Your task to perform on an android device: Do I have any events this weekend? Image 0: 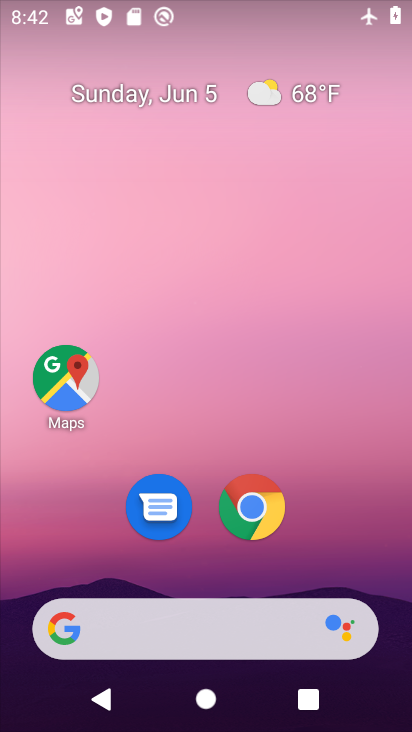
Step 0: drag from (189, 527) to (169, 189)
Your task to perform on an android device: Do I have any events this weekend? Image 1: 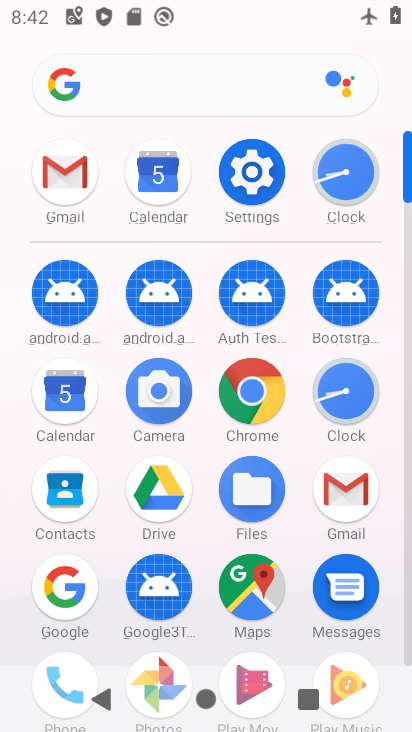
Step 1: click (68, 397)
Your task to perform on an android device: Do I have any events this weekend? Image 2: 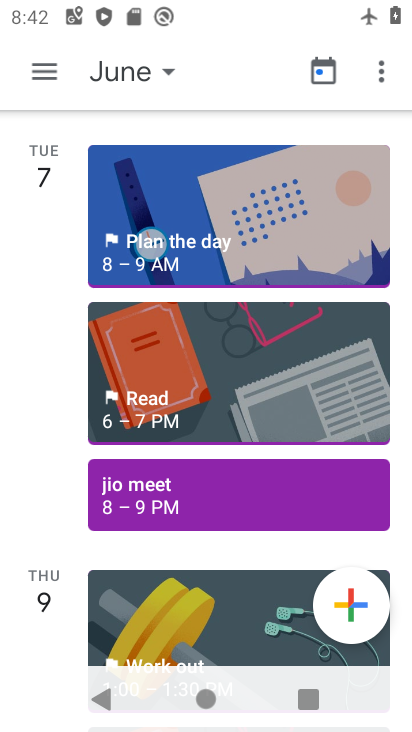
Step 2: click (49, 66)
Your task to perform on an android device: Do I have any events this weekend? Image 3: 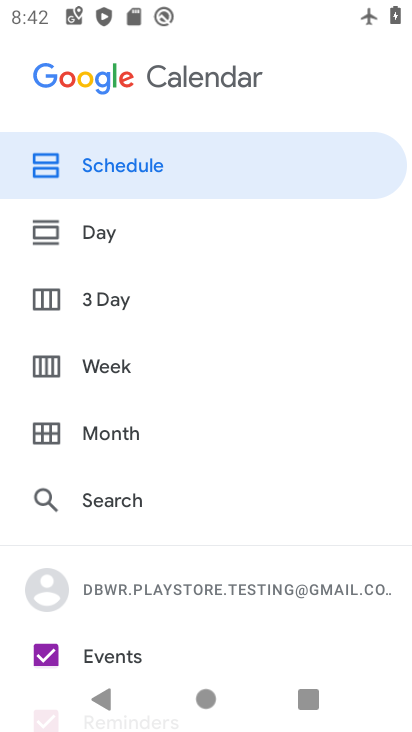
Step 3: drag from (103, 564) to (168, 226)
Your task to perform on an android device: Do I have any events this weekend? Image 4: 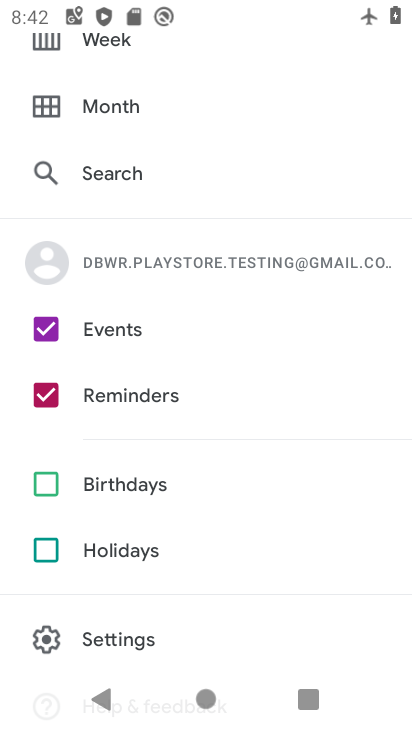
Step 4: click (149, 399)
Your task to perform on an android device: Do I have any events this weekend? Image 5: 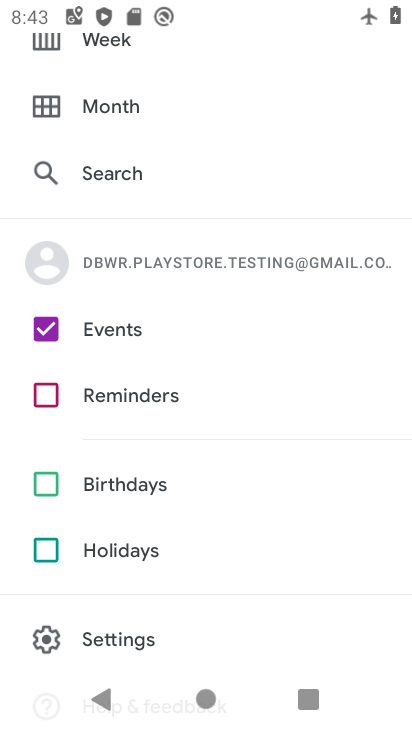
Step 5: drag from (205, 184) to (192, 588)
Your task to perform on an android device: Do I have any events this weekend? Image 6: 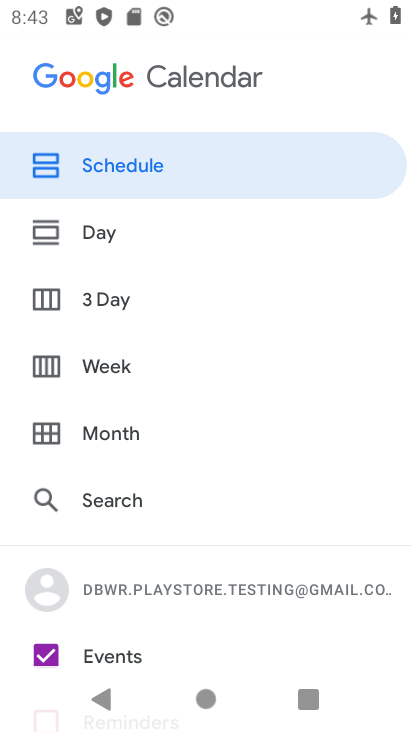
Step 6: click (115, 320)
Your task to perform on an android device: Do I have any events this weekend? Image 7: 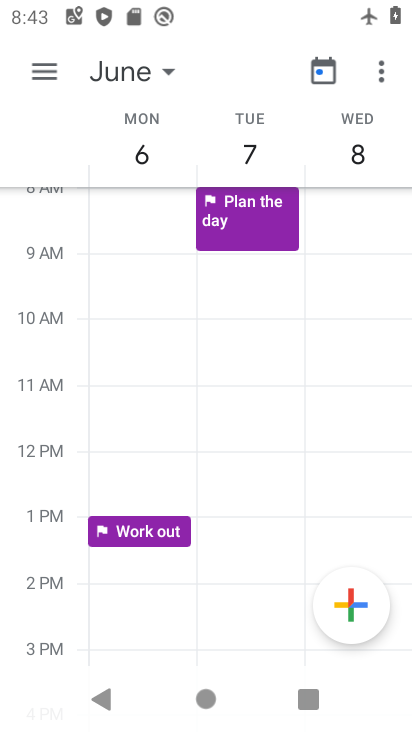
Step 7: click (49, 77)
Your task to perform on an android device: Do I have any events this weekend? Image 8: 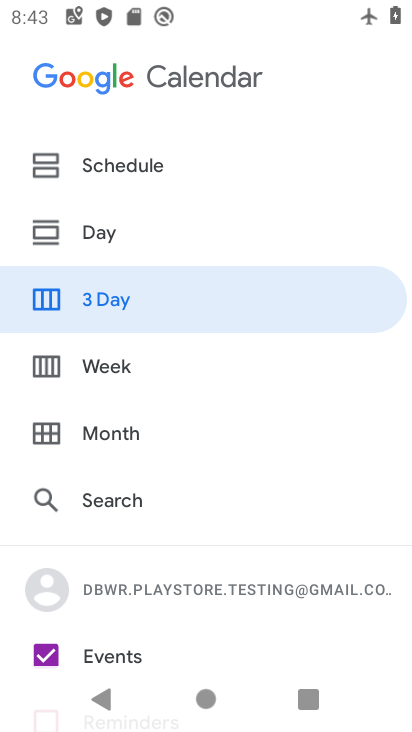
Step 8: click (138, 378)
Your task to perform on an android device: Do I have any events this weekend? Image 9: 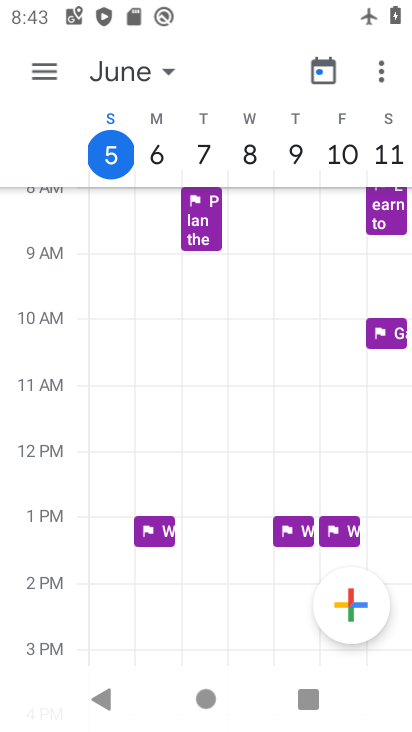
Step 9: task complete